Your task to perform on an android device: Go to Reddit.com Image 0: 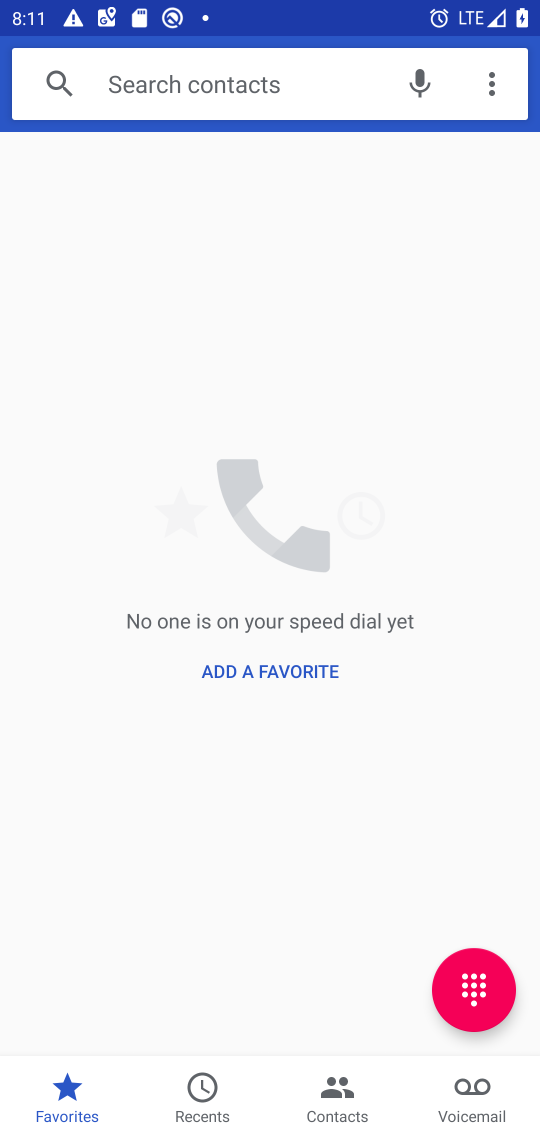
Step 0: press home button
Your task to perform on an android device: Go to Reddit.com Image 1: 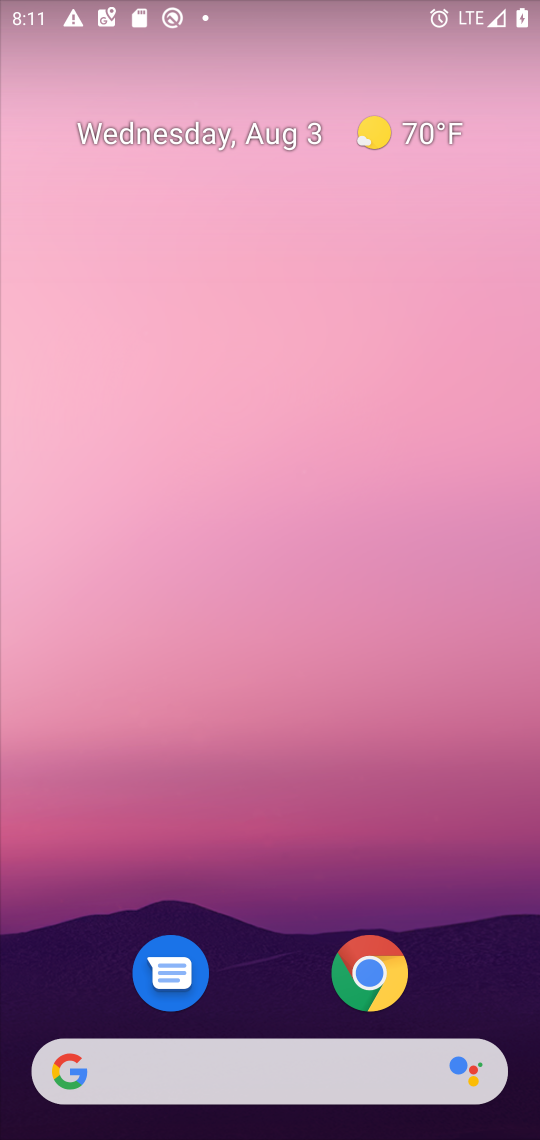
Step 1: click (377, 961)
Your task to perform on an android device: Go to Reddit.com Image 2: 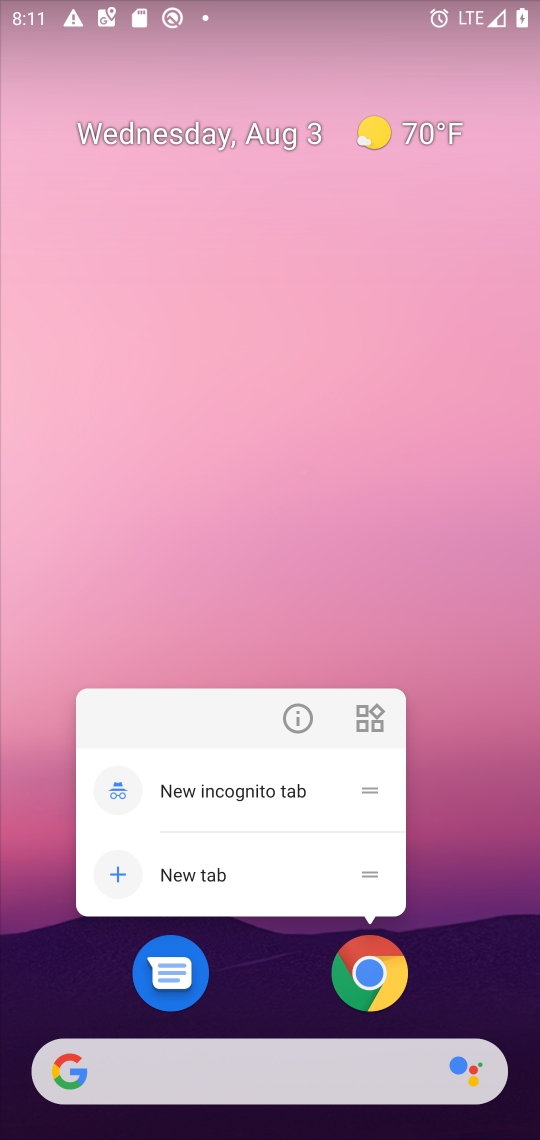
Step 2: click (456, 982)
Your task to perform on an android device: Go to Reddit.com Image 3: 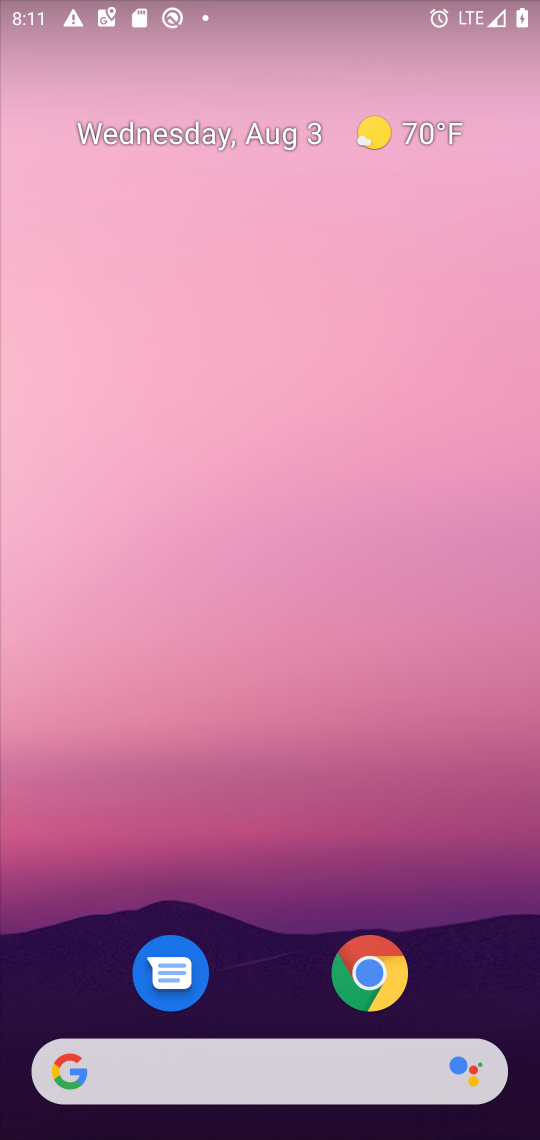
Step 3: click (383, 978)
Your task to perform on an android device: Go to Reddit.com Image 4: 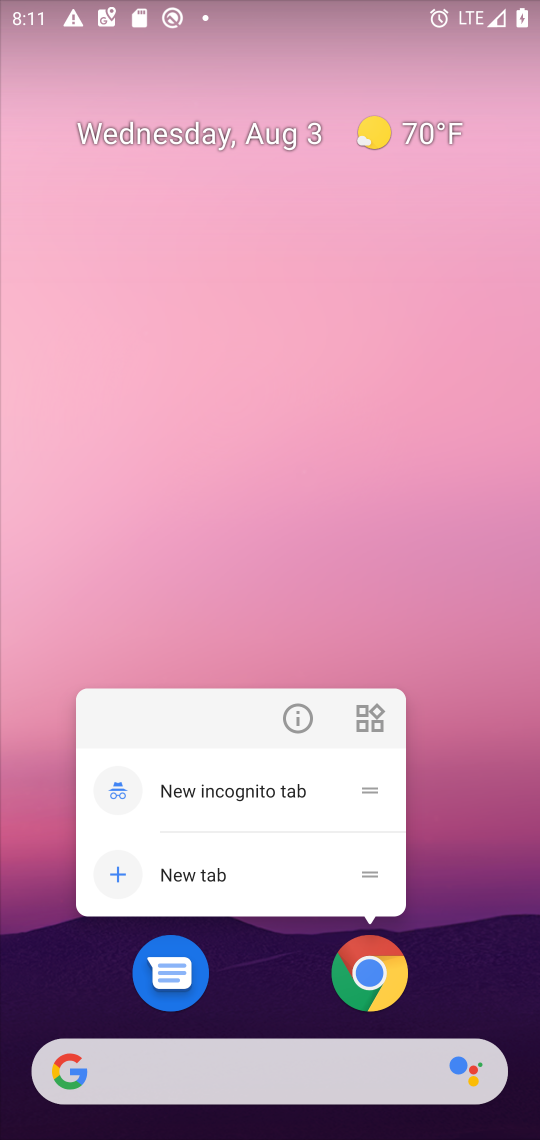
Step 4: click (499, 993)
Your task to perform on an android device: Go to Reddit.com Image 5: 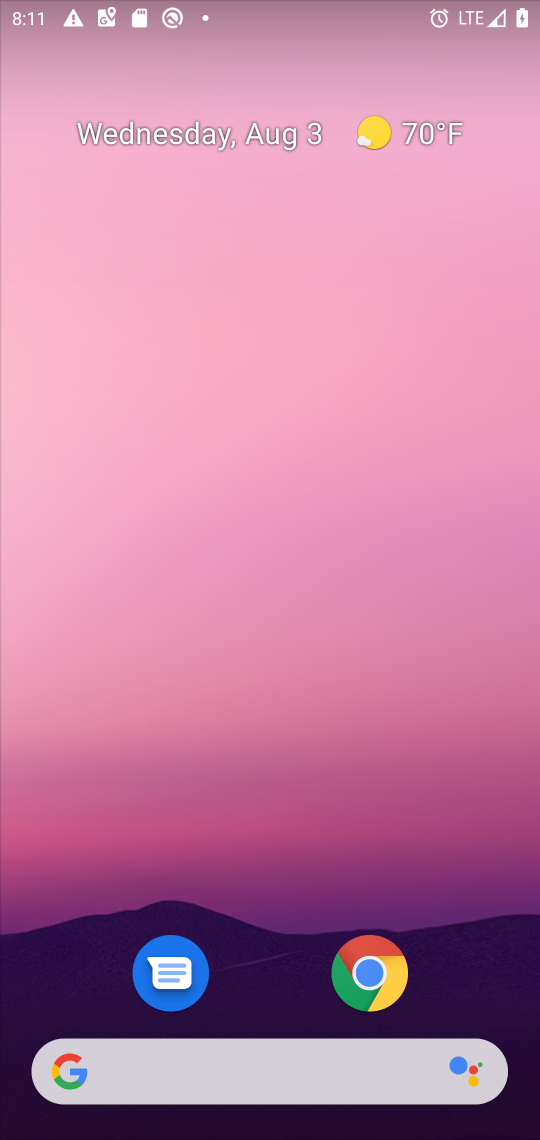
Step 5: drag from (460, 996) to (449, 12)
Your task to perform on an android device: Go to Reddit.com Image 6: 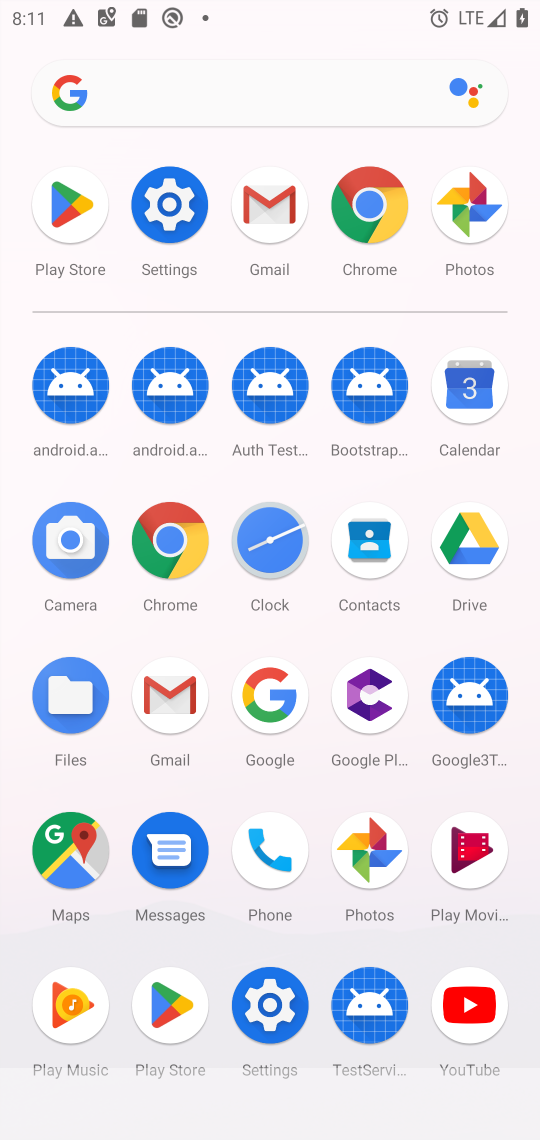
Step 6: click (371, 200)
Your task to perform on an android device: Go to Reddit.com Image 7: 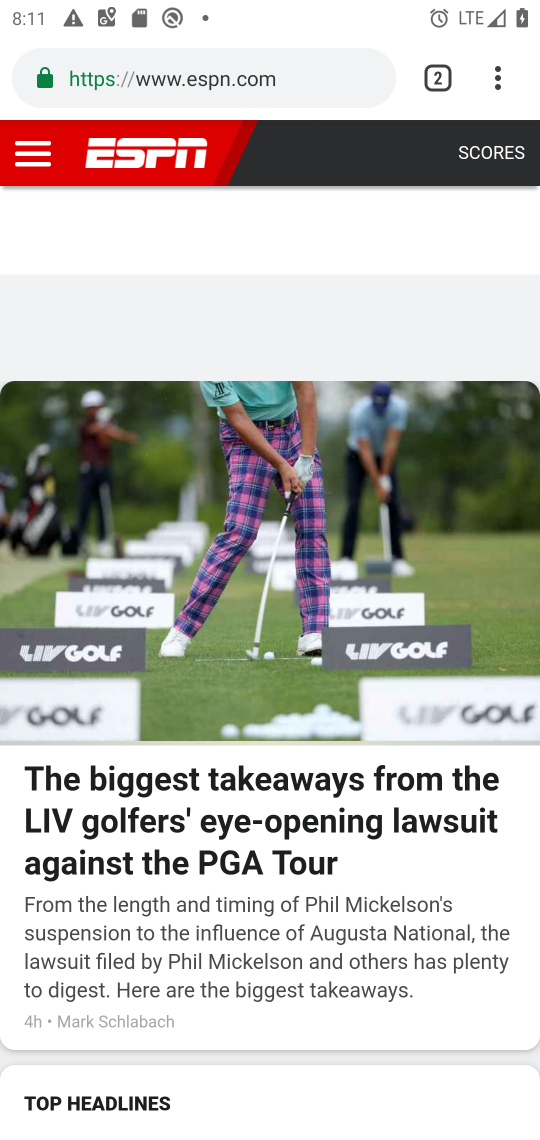
Step 7: click (436, 75)
Your task to perform on an android device: Go to Reddit.com Image 8: 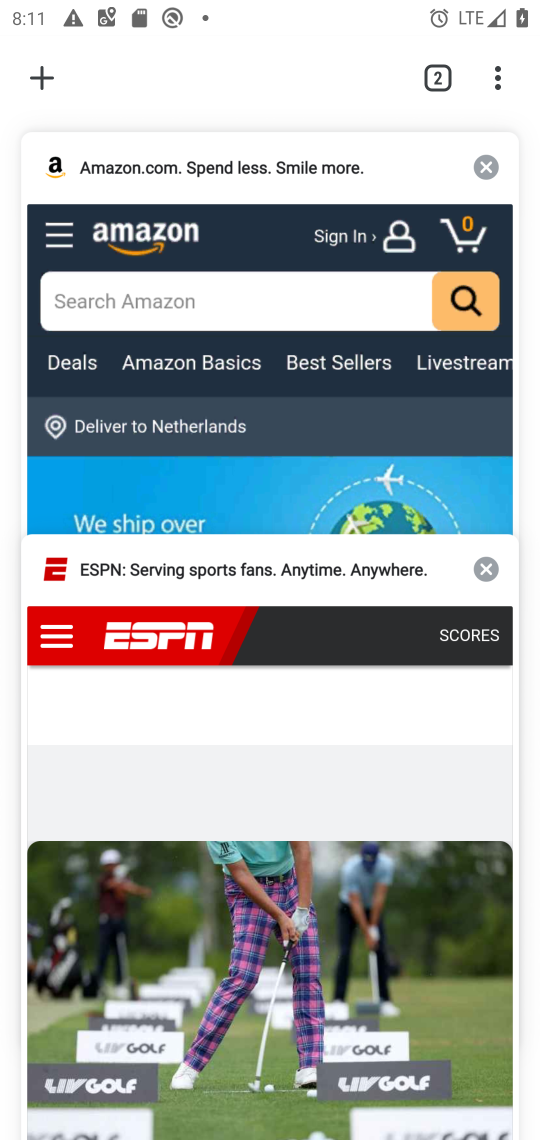
Step 8: click (41, 82)
Your task to perform on an android device: Go to Reddit.com Image 9: 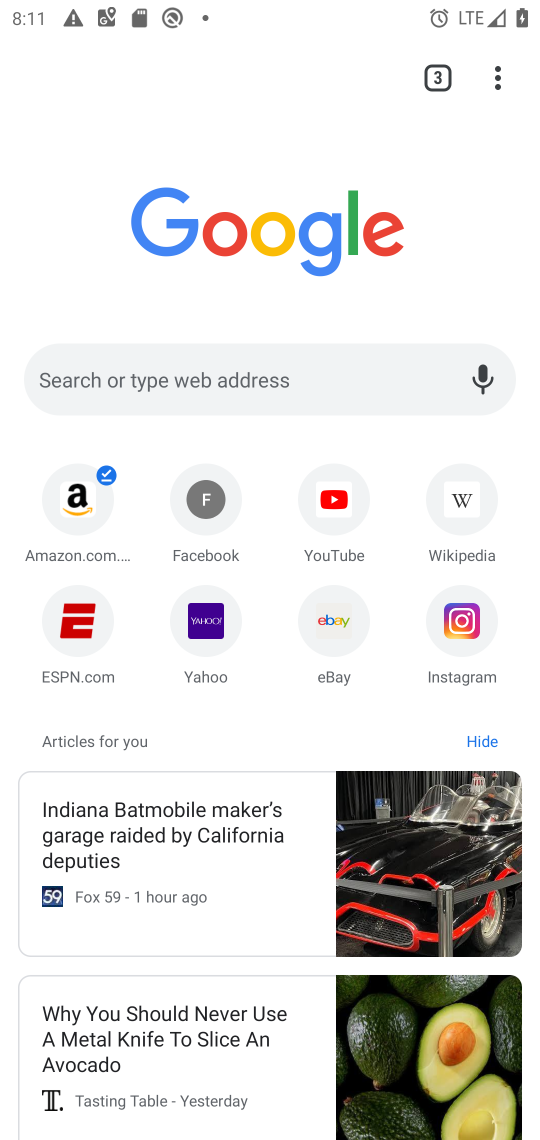
Step 9: click (184, 368)
Your task to perform on an android device: Go to Reddit.com Image 10: 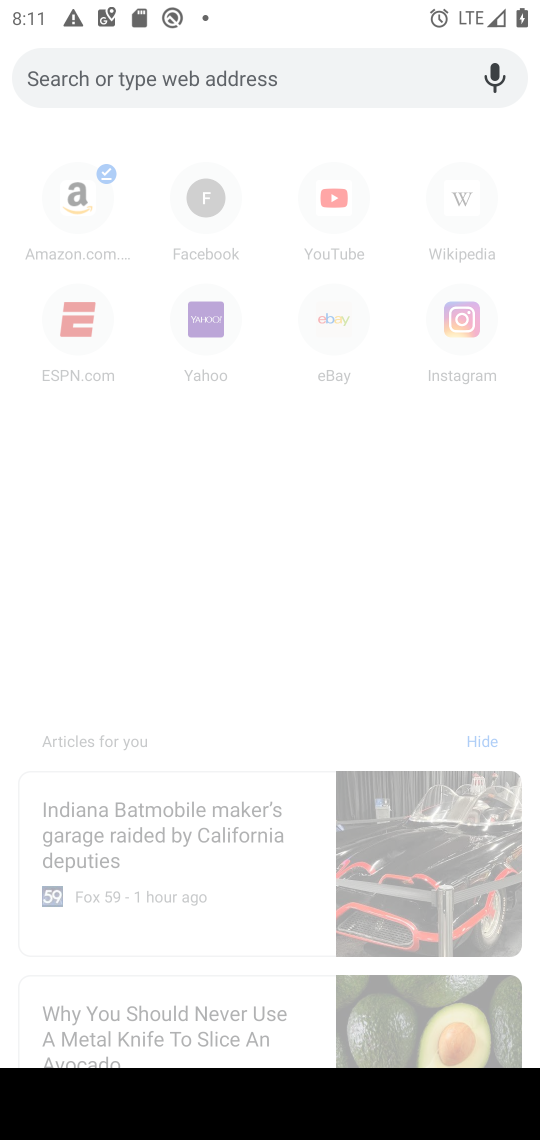
Step 10: type "reddit.com"
Your task to perform on an android device: Go to Reddit.com Image 11: 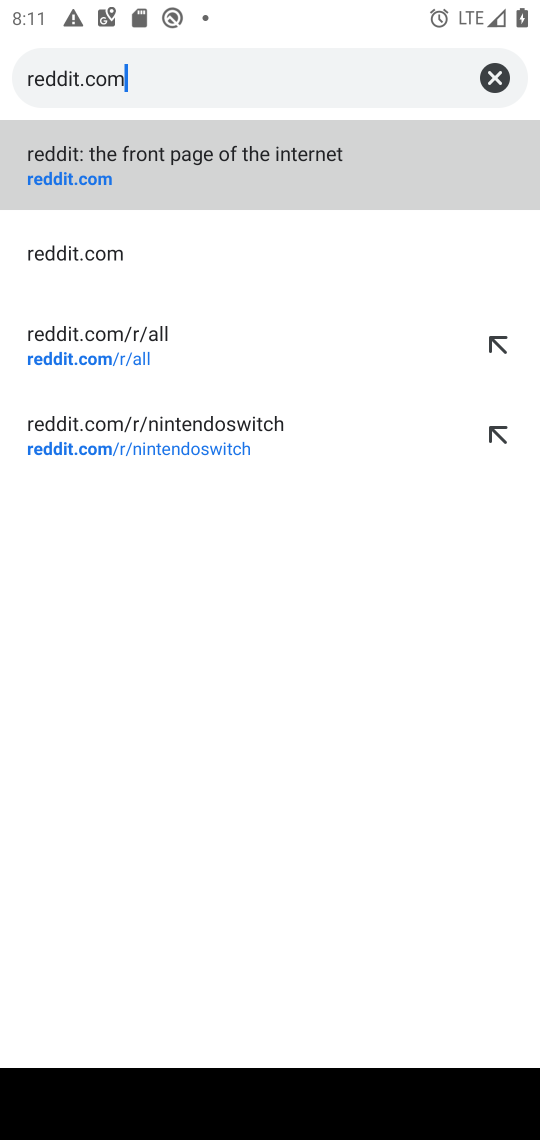
Step 11: click (114, 164)
Your task to perform on an android device: Go to Reddit.com Image 12: 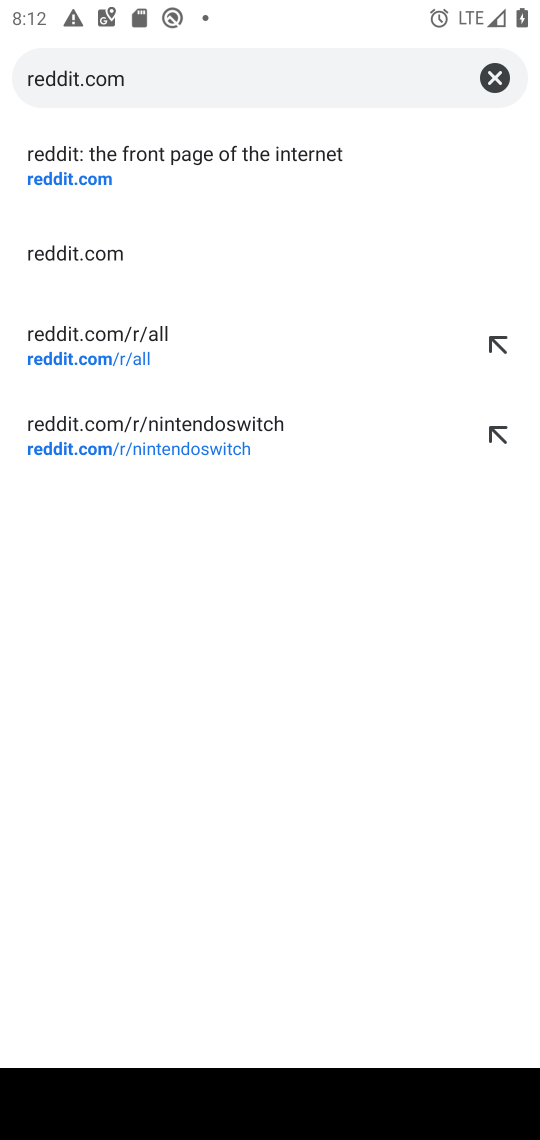
Step 12: click (137, 176)
Your task to perform on an android device: Go to Reddit.com Image 13: 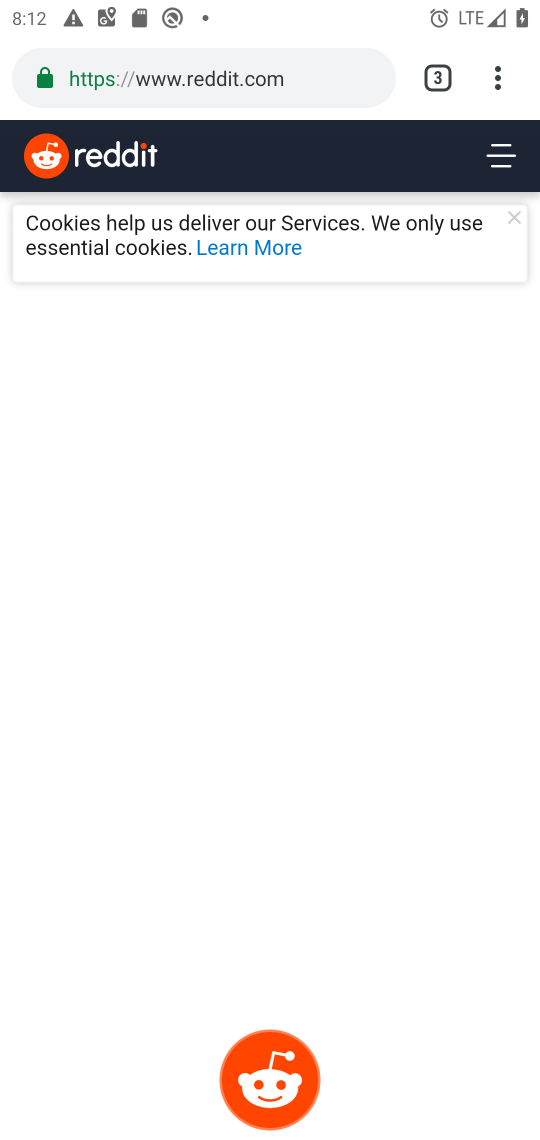
Step 13: drag from (337, 898) to (295, 264)
Your task to perform on an android device: Go to Reddit.com Image 14: 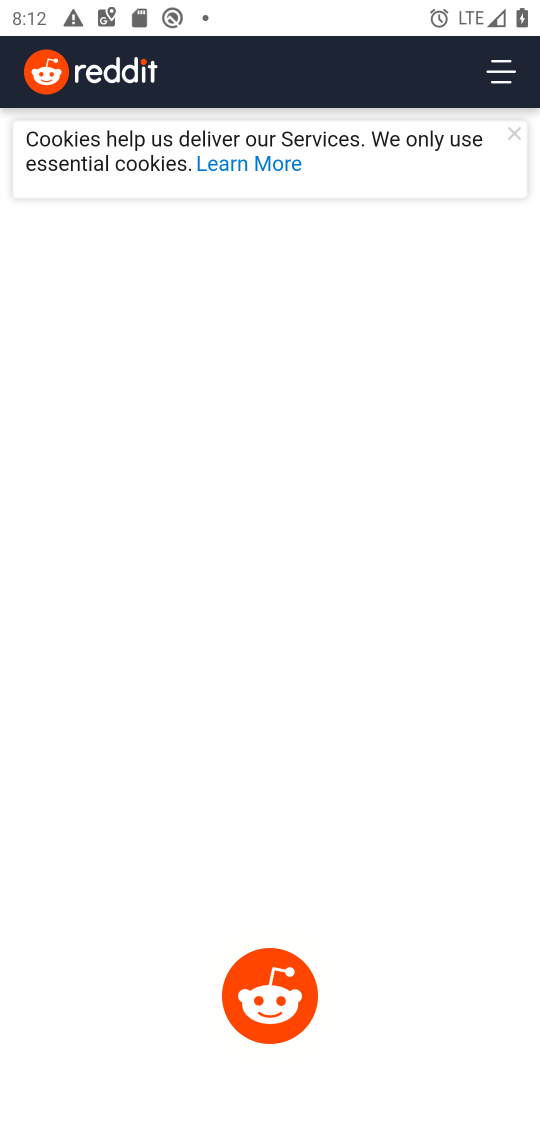
Step 14: click (265, 992)
Your task to perform on an android device: Go to Reddit.com Image 15: 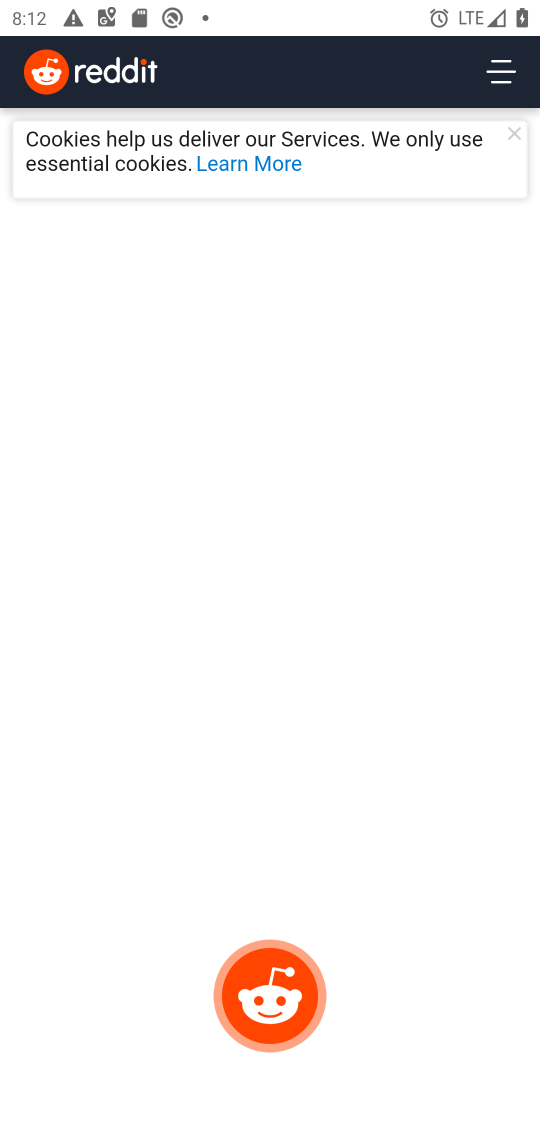
Step 15: click (508, 71)
Your task to perform on an android device: Go to Reddit.com Image 16: 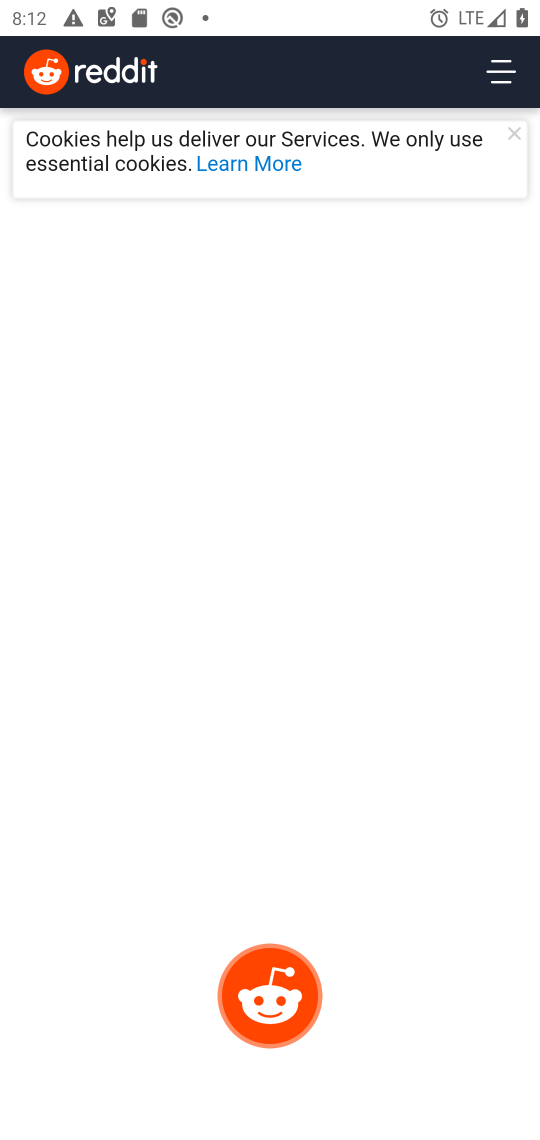
Step 16: task complete